Your task to perform on an android device: Open Google Maps and go to "Timeline" Image 0: 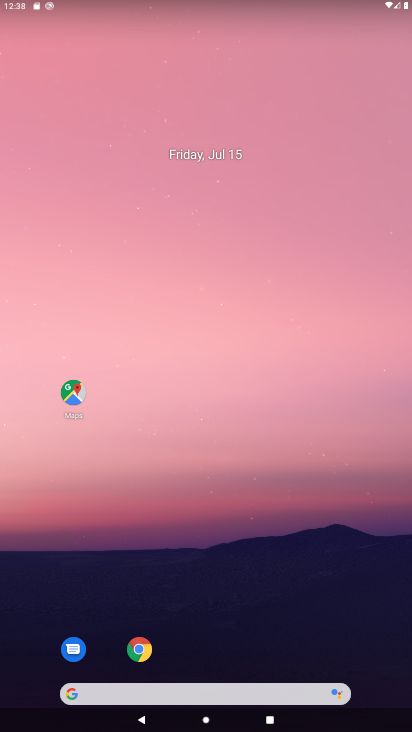
Step 0: drag from (190, 665) to (177, 168)
Your task to perform on an android device: Open Google Maps and go to "Timeline" Image 1: 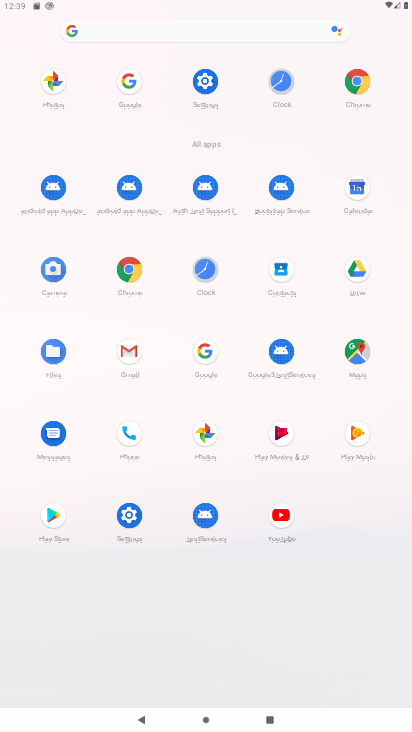
Step 1: click (356, 343)
Your task to perform on an android device: Open Google Maps and go to "Timeline" Image 2: 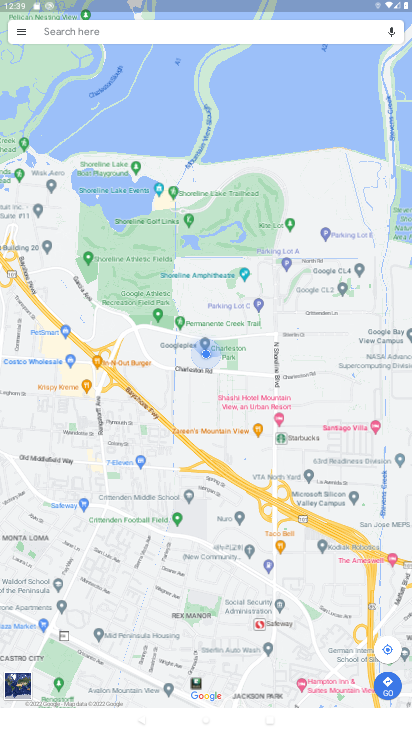
Step 2: click (10, 33)
Your task to perform on an android device: Open Google Maps and go to "Timeline" Image 3: 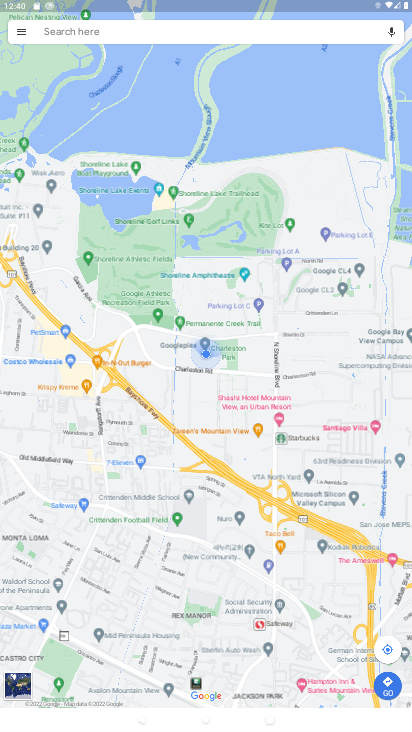
Step 3: click (15, 31)
Your task to perform on an android device: Open Google Maps and go to "Timeline" Image 4: 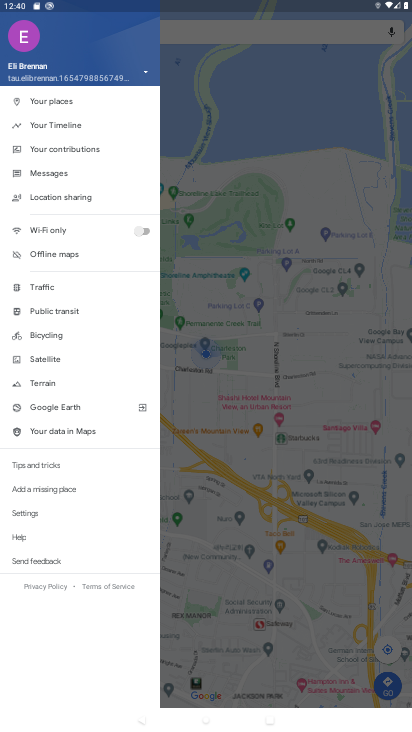
Step 4: click (52, 119)
Your task to perform on an android device: Open Google Maps and go to "Timeline" Image 5: 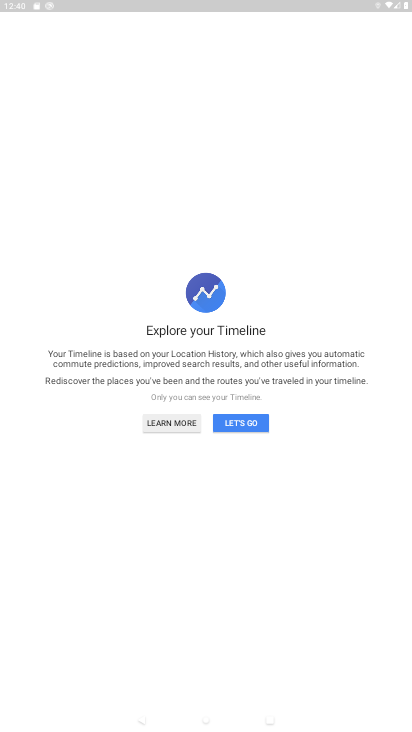
Step 5: click (241, 419)
Your task to perform on an android device: Open Google Maps and go to "Timeline" Image 6: 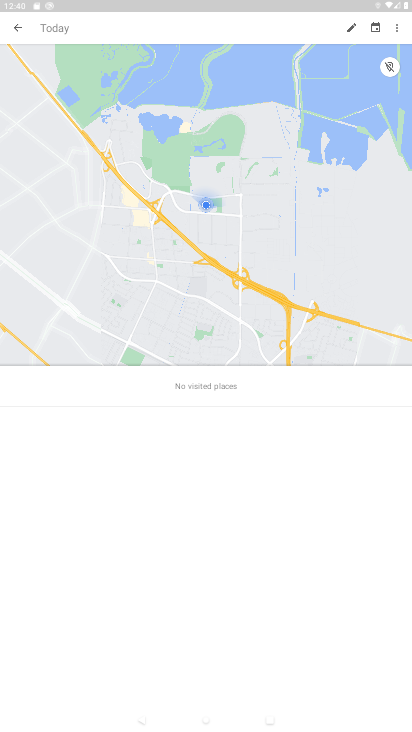
Step 6: task complete